Your task to perform on an android device: Do I have any events today? Image 0: 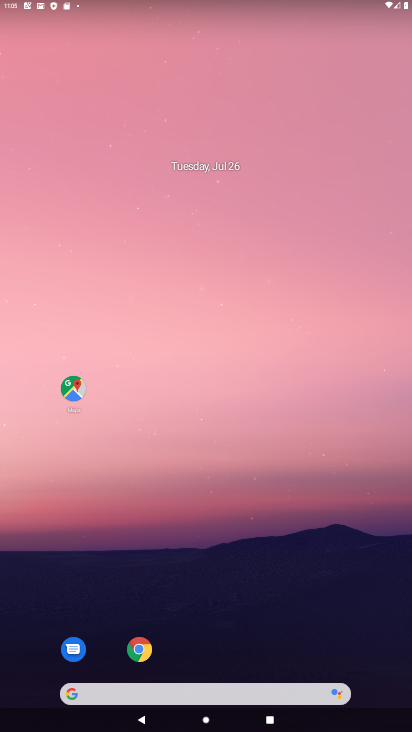
Step 0: drag from (263, 642) to (146, 42)
Your task to perform on an android device: Do I have any events today? Image 1: 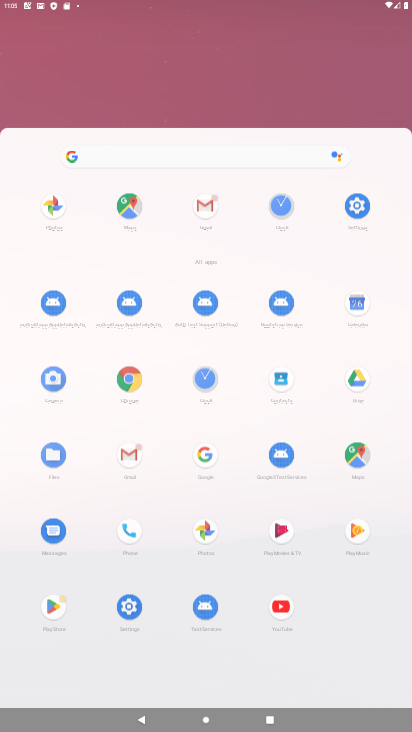
Step 1: drag from (220, 472) to (180, 168)
Your task to perform on an android device: Do I have any events today? Image 2: 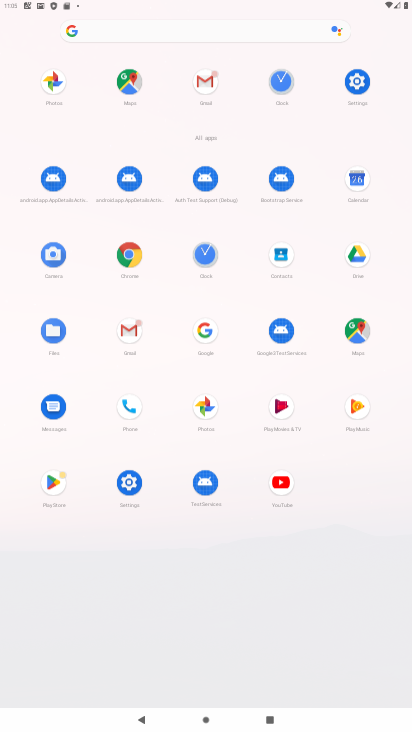
Step 2: drag from (251, 477) to (228, 134)
Your task to perform on an android device: Do I have any events today? Image 3: 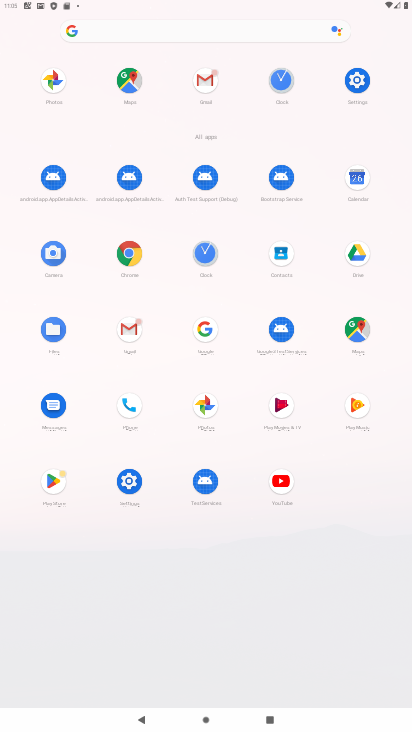
Step 3: click (351, 182)
Your task to perform on an android device: Do I have any events today? Image 4: 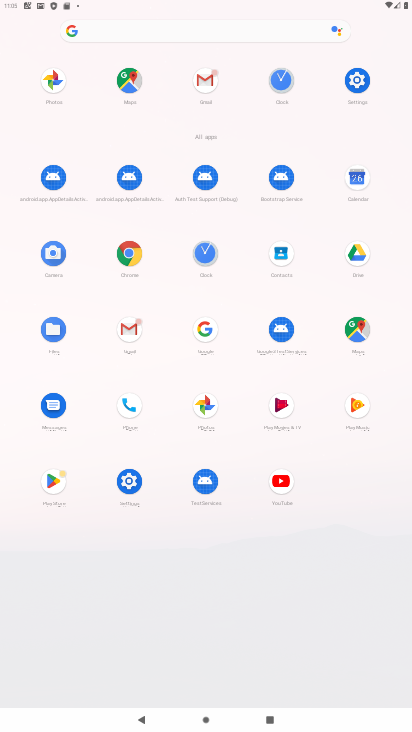
Step 4: click (356, 178)
Your task to perform on an android device: Do I have any events today? Image 5: 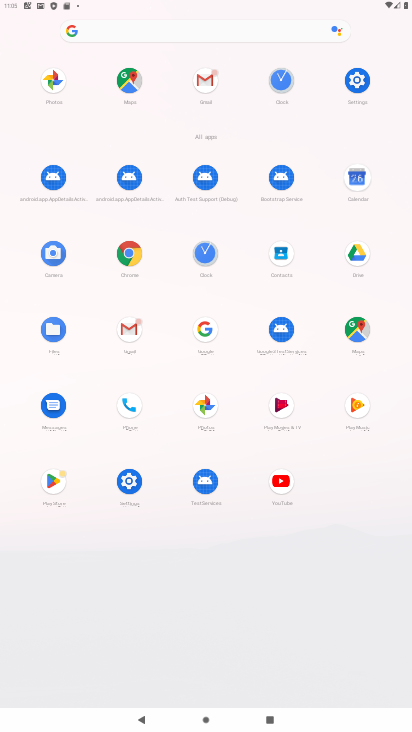
Step 5: click (358, 180)
Your task to perform on an android device: Do I have any events today? Image 6: 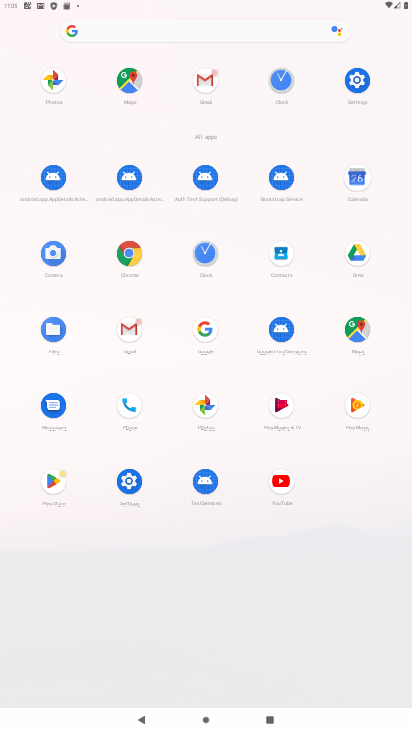
Step 6: click (358, 180)
Your task to perform on an android device: Do I have any events today? Image 7: 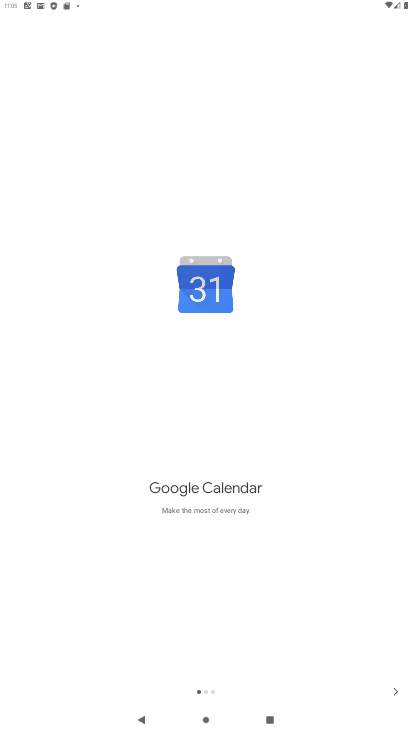
Step 7: click (385, 688)
Your task to perform on an android device: Do I have any events today? Image 8: 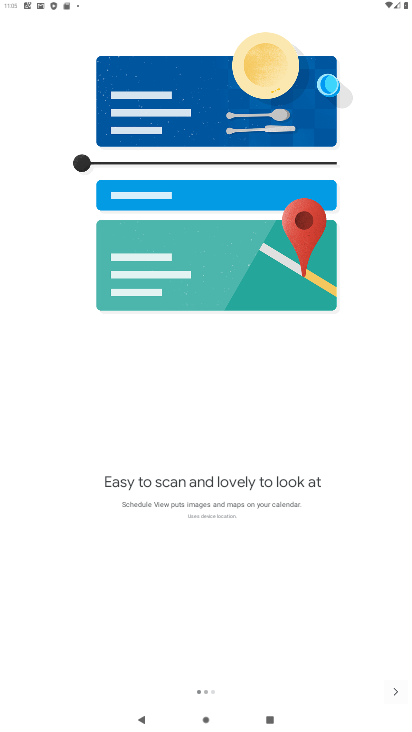
Step 8: click (389, 686)
Your task to perform on an android device: Do I have any events today? Image 9: 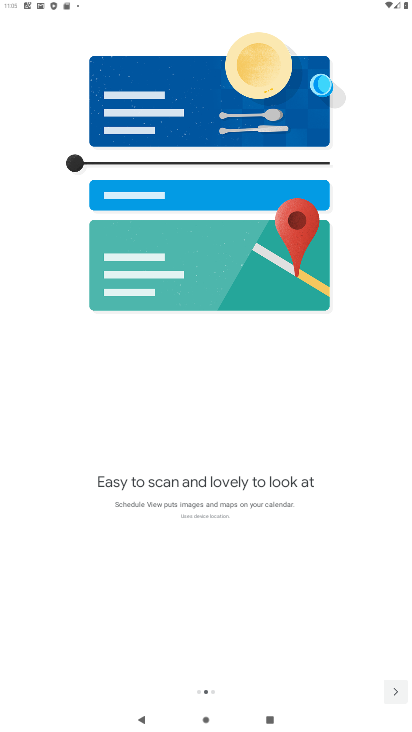
Step 9: click (390, 681)
Your task to perform on an android device: Do I have any events today? Image 10: 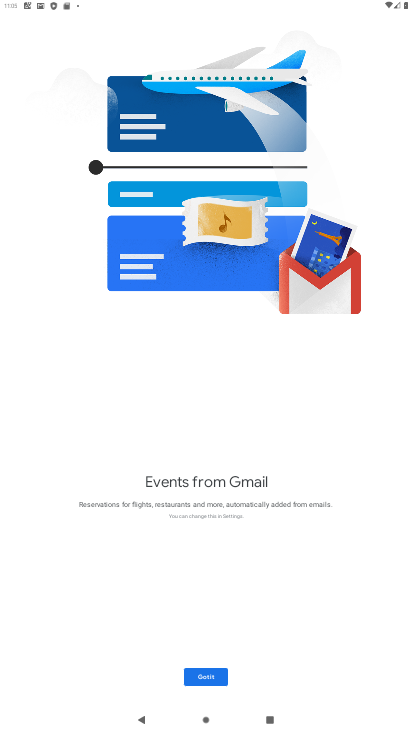
Step 10: click (388, 681)
Your task to perform on an android device: Do I have any events today? Image 11: 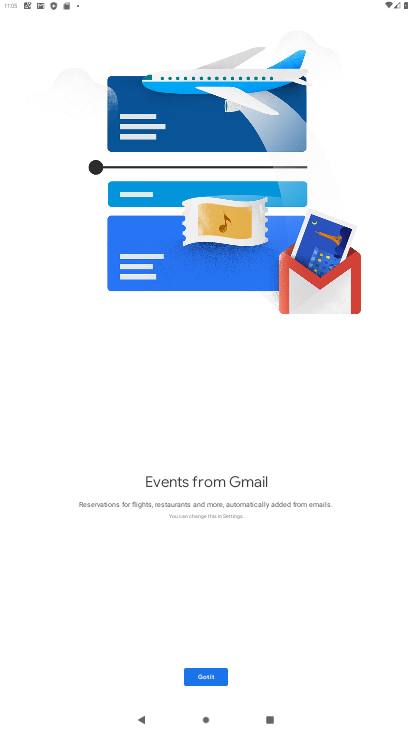
Step 11: click (388, 681)
Your task to perform on an android device: Do I have any events today? Image 12: 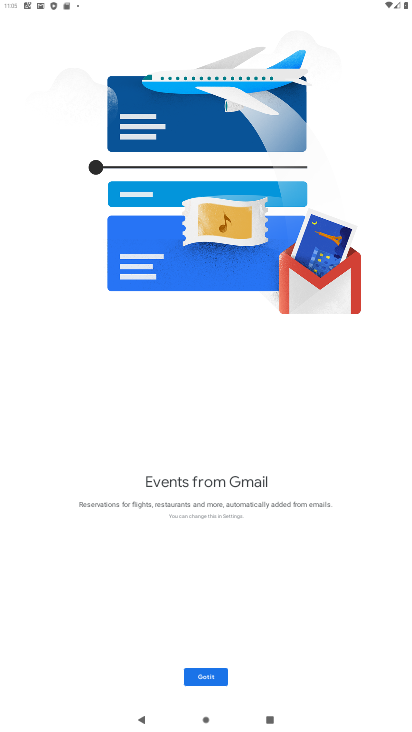
Step 12: click (390, 685)
Your task to perform on an android device: Do I have any events today? Image 13: 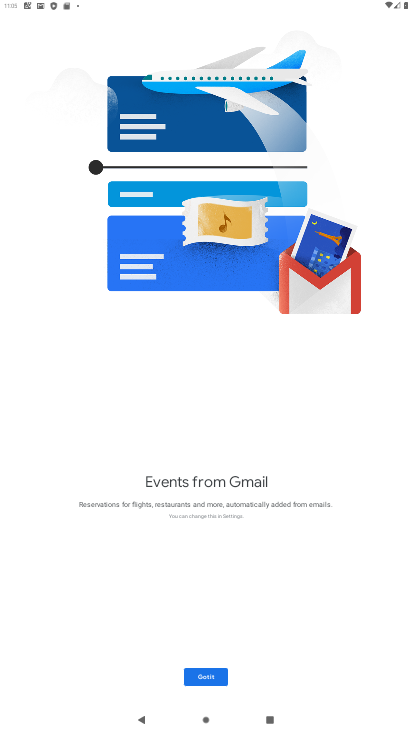
Step 13: click (203, 672)
Your task to perform on an android device: Do I have any events today? Image 14: 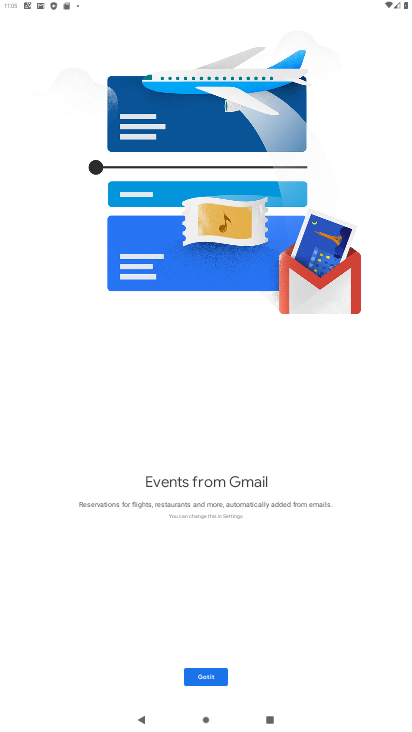
Step 14: click (203, 672)
Your task to perform on an android device: Do I have any events today? Image 15: 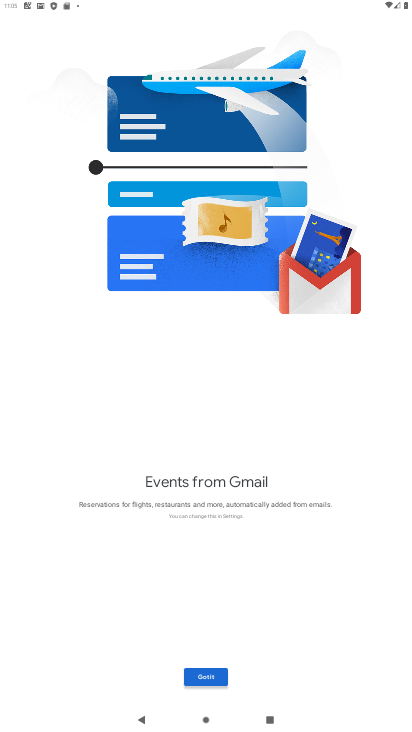
Step 15: click (203, 672)
Your task to perform on an android device: Do I have any events today? Image 16: 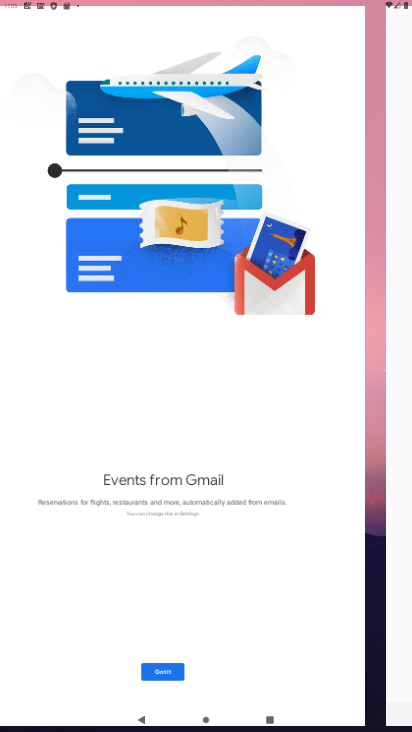
Step 16: click (203, 672)
Your task to perform on an android device: Do I have any events today? Image 17: 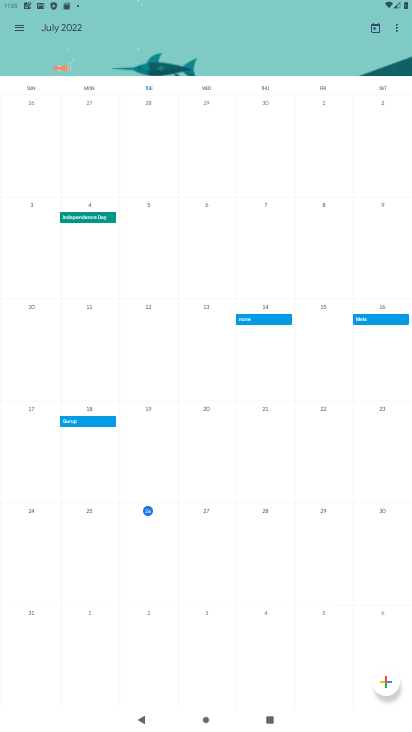
Step 17: task complete